Your task to perform on an android device: delete a single message in the gmail app Image 0: 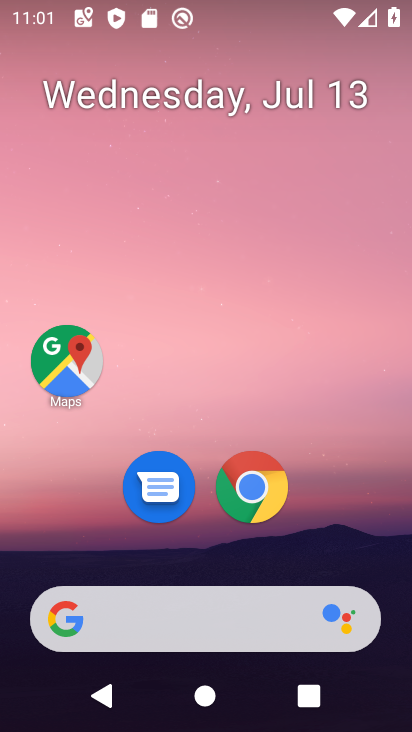
Step 0: drag from (193, 572) to (150, 9)
Your task to perform on an android device: delete a single message in the gmail app Image 1: 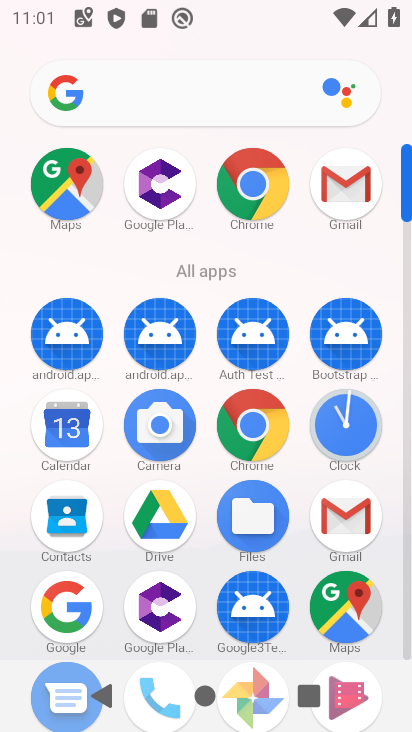
Step 1: click (350, 529)
Your task to perform on an android device: delete a single message in the gmail app Image 2: 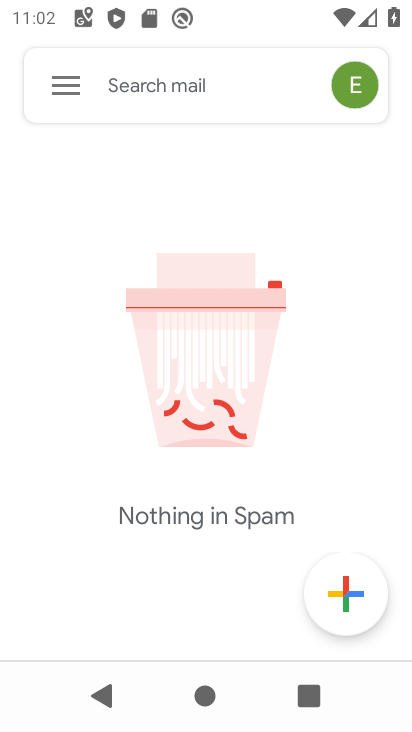
Step 2: drag from (139, 184) to (153, 375)
Your task to perform on an android device: delete a single message in the gmail app Image 3: 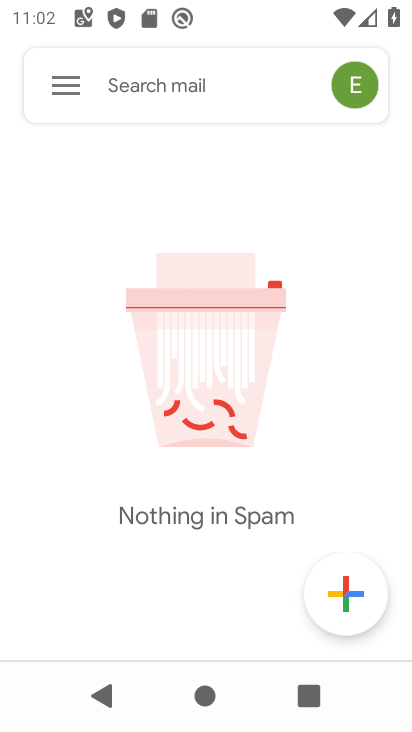
Step 3: click (50, 91)
Your task to perform on an android device: delete a single message in the gmail app Image 4: 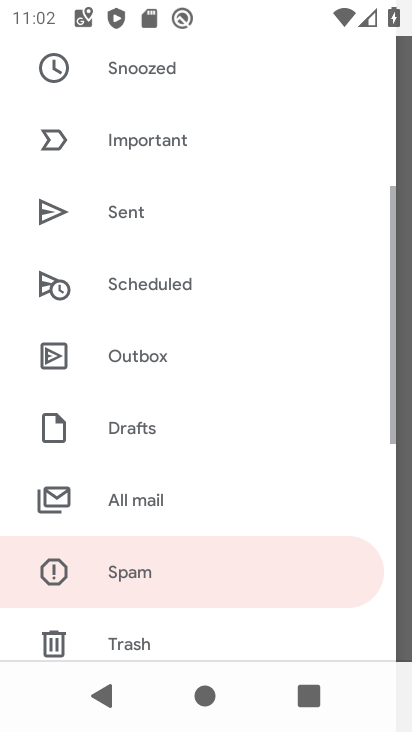
Step 4: drag from (213, 565) to (201, 221)
Your task to perform on an android device: delete a single message in the gmail app Image 5: 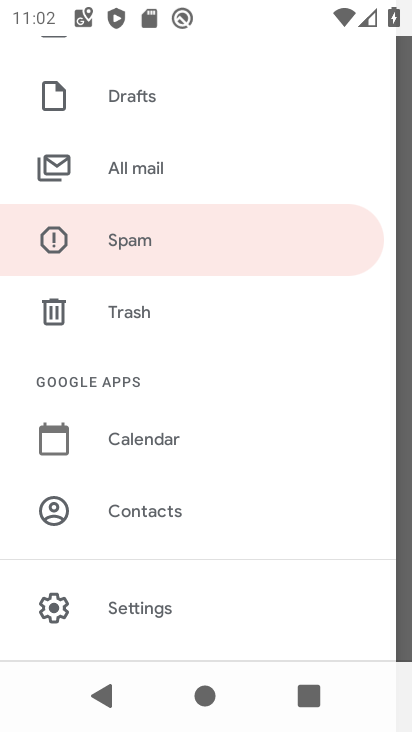
Step 5: click (161, 165)
Your task to perform on an android device: delete a single message in the gmail app Image 6: 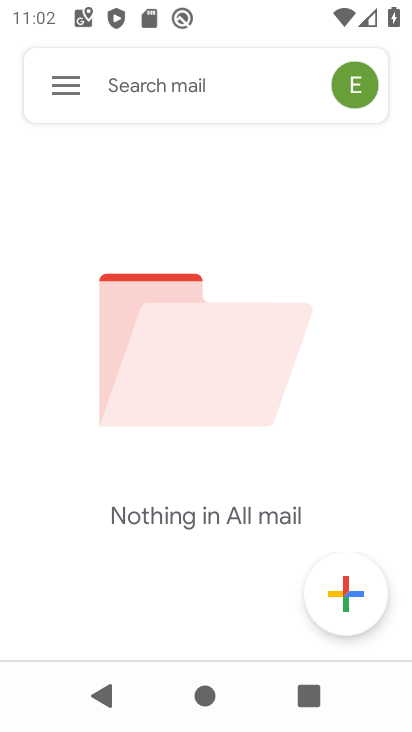
Step 6: task complete